Your task to perform on an android device: Search for vegetarian restaurants on Maps Image 0: 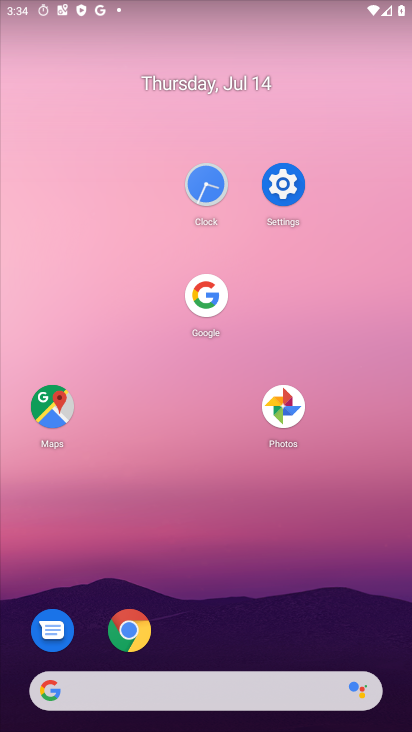
Step 0: click (286, 179)
Your task to perform on an android device: Search for vegetarian restaurants on Maps Image 1: 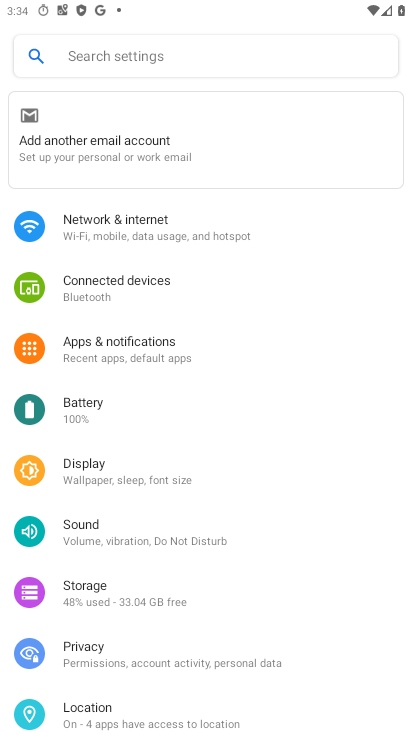
Step 1: click (129, 594)
Your task to perform on an android device: Search for vegetarian restaurants on Maps Image 2: 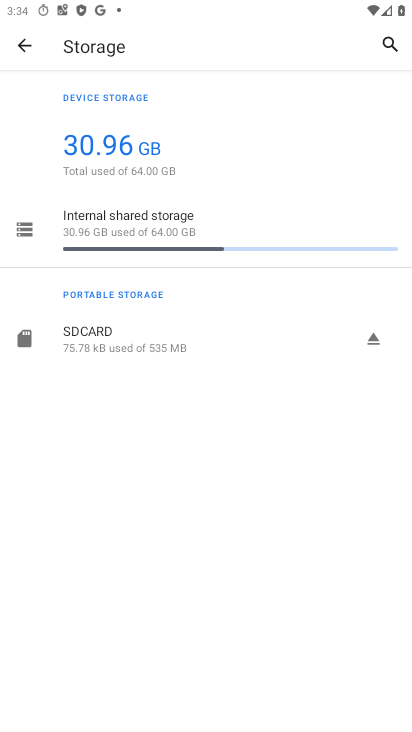
Step 2: task complete